Your task to perform on an android device: allow cookies in the chrome app Image 0: 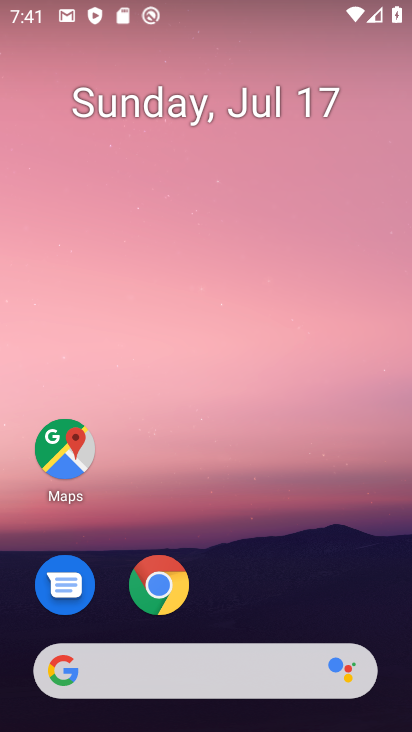
Step 0: click (156, 590)
Your task to perform on an android device: allow cookies in the chrome app Image 1: 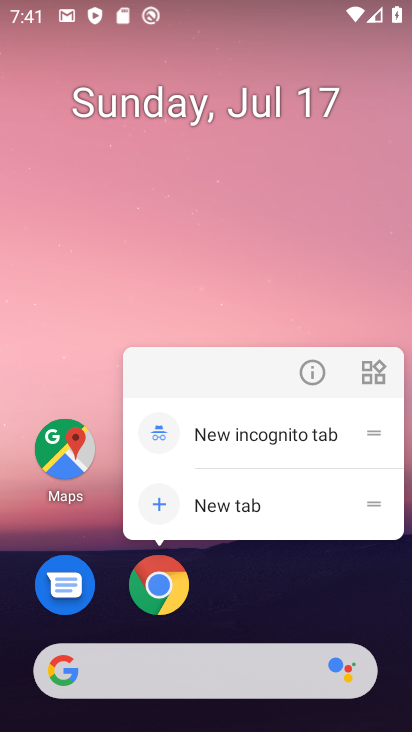
Step 1: click (160, 584)
Your task to perform on an android device: allow cookies in the chrome app Image 2: 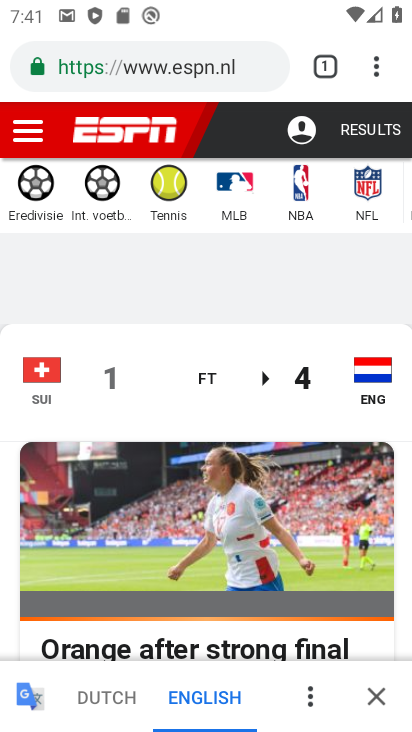
Step 2: drag from (377, 74) to (187, 582)
Your task to perform on an android device: allow cookies in the chrome app Image 3: 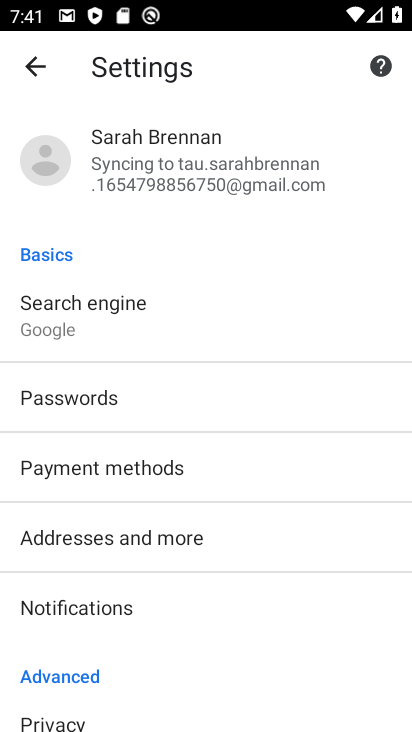
Step 3: drag from (177, 639) to (299, 160)
Your task to perform on an android device: allow cookies in the chrome app Image 4: 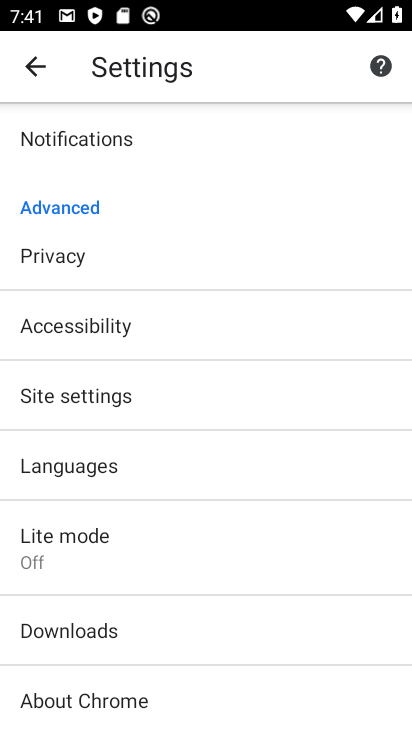
Step 4: click (90, 397)
Your task to perform on an android device: allow cookies in the chrome app Image 5: 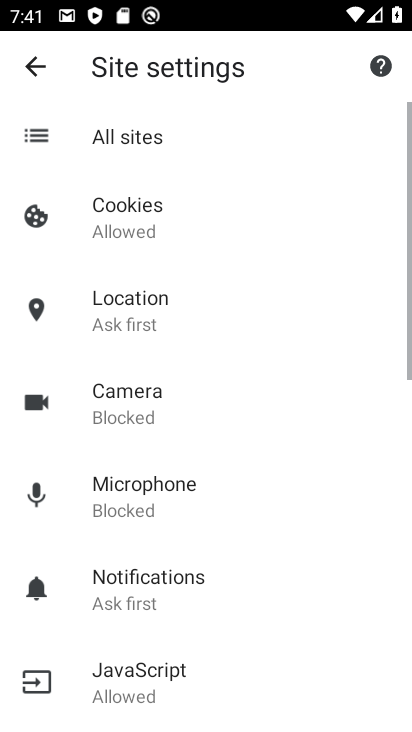
Step 5: click (132, 206)
Your task to perform on an android device: allow cookies in the chrome app Image 6: 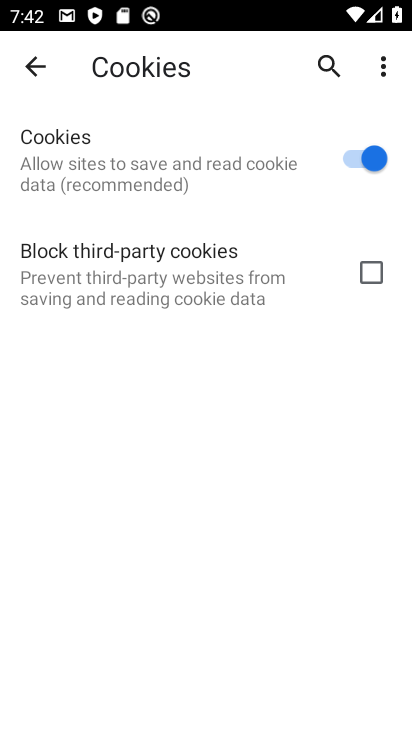
Step 6: task complete